Your task to perform on an android device: remove spam from my inbox in the gmail app Image 0: 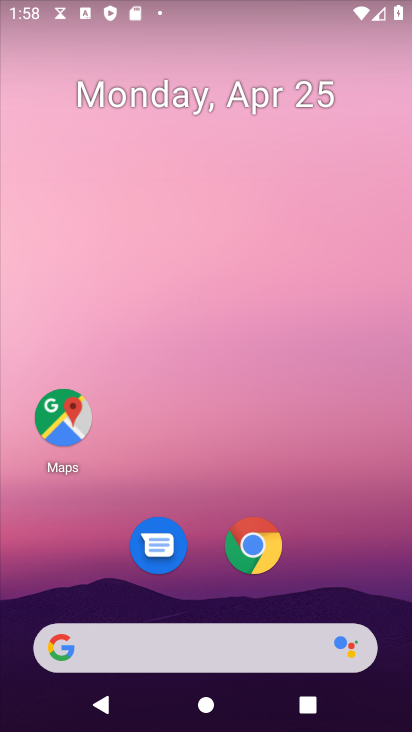
Step 0: drag from (191, 576) to (177, 51)
Your task to perform on an android device: remove spam from my inbox in the gmail app Image 1: 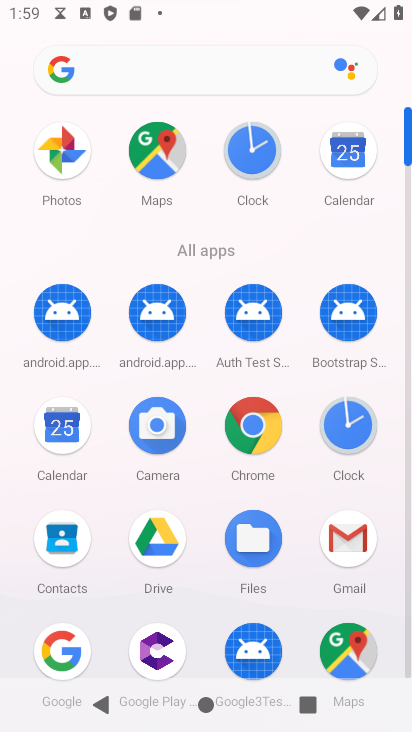
Step 1: click (336, 530)
Your task to perform on an android device: remove spam from my inbox in the gmail app Image 2: 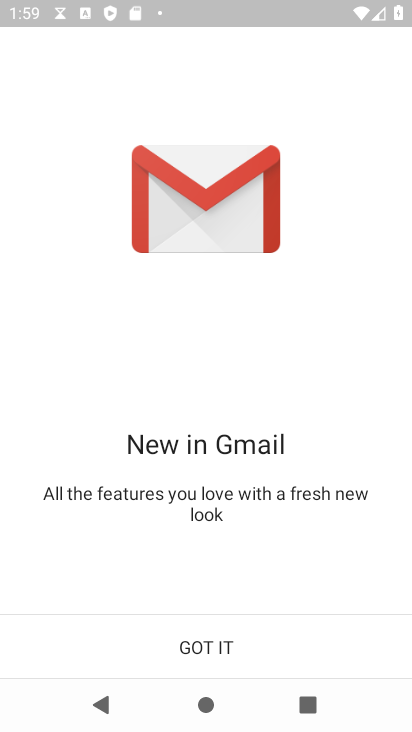
Step 2: click (225, 625)
Your task to perform on an android device: remove spam from my inbox in the gmail app Image 3: 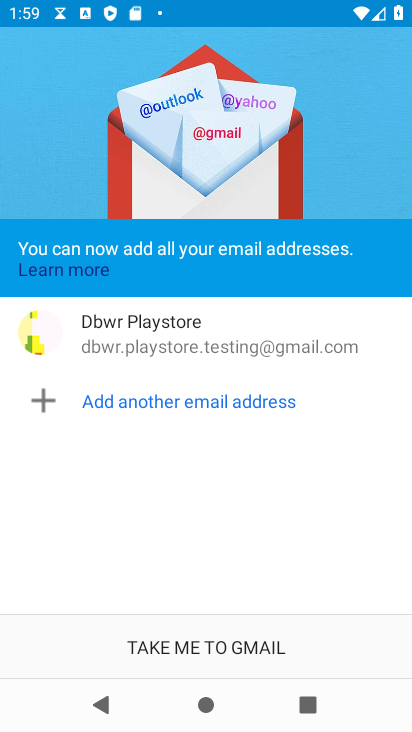
Step 3: click (206, 635)
Your task to perform on an android device: remove spam from my inbox in the gmail app Image 4: 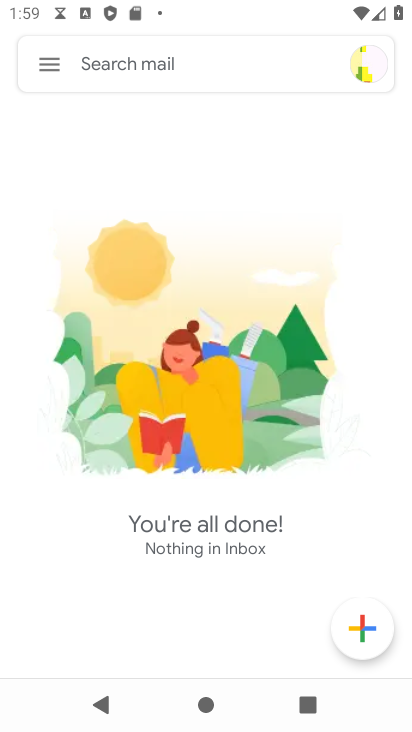
Step 4: click (49, 71)
Your task to perform on an android device: remove spam from my inbox in the gmail app Image 5: 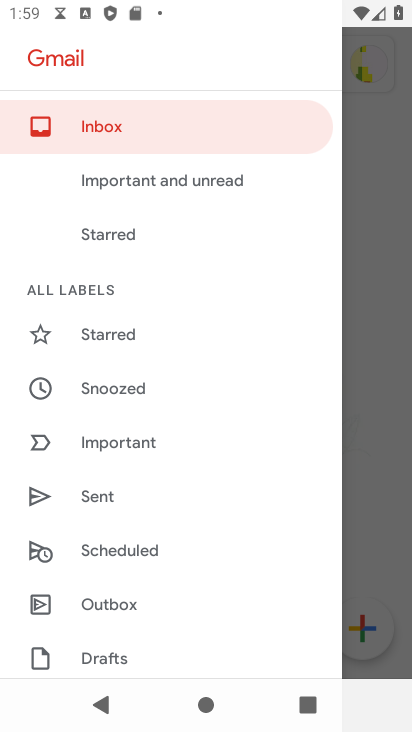
Step 5: drag from (113, 625) to (80, 203)
Your task to perform on an android device: remove spam from my inbox in the gmail app Image 6: 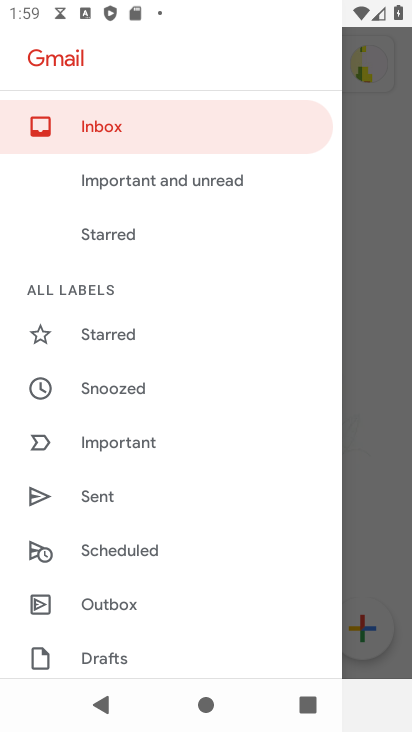
Step 6: drag from (137, 582) to (123, 159)
Your task to perform on an android device: remove spam from my inbox in the gmail app Image 7: 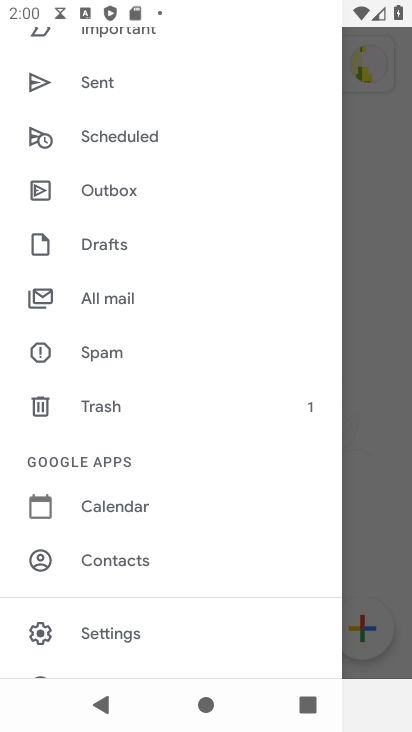
Step 7: click (88, 364)
Your task to perform on an android device: remove spam from my inbox in the gmail app Image 8: 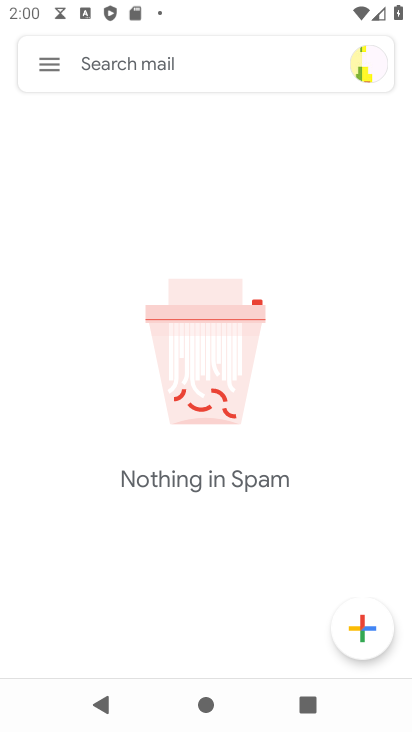
Step 8: task complete